Your task to perform on an android device: What's the news in Argentina? Image 0: 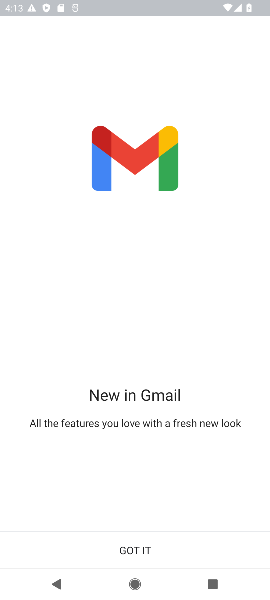
Step 0: press home button
Your task to perform on an android device: What's the news in Argentina? Image 1: 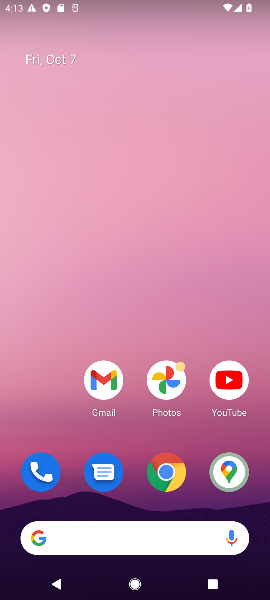
Step 1: click (162, 474)
Your task to perform on an android device: What's the news in Argentina? Image 2: 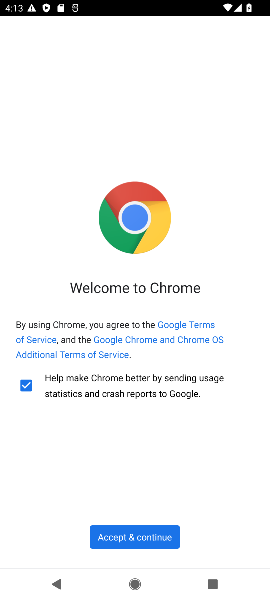
Step 2: click (146, 540)
Your task to perform on an android device: What's the news in Argentina? Image 3: 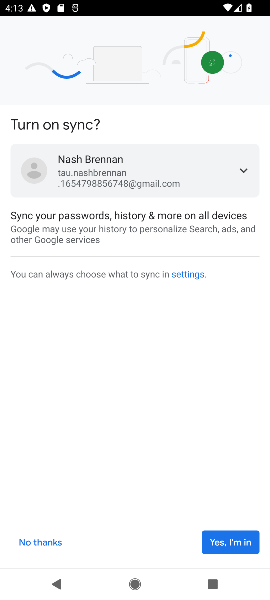
Step 3: click (51, 542)
Your task to perform on an android device: What's the news in Argentina? Image 4: 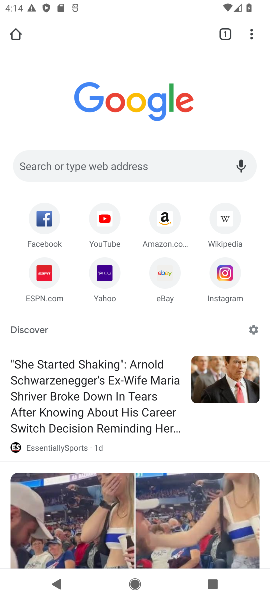
Step 4: click (130, 162)
Your task to perform on an android device: What's the news in Argentina? Image 5: 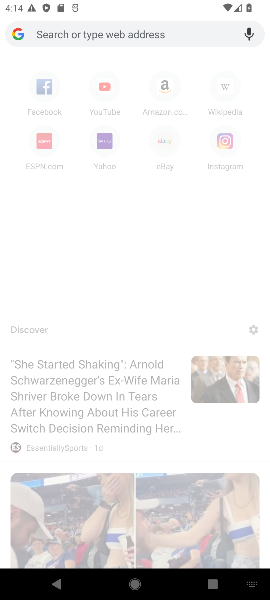
Step 5: type "argentina"
Your task to perform on an android device: What's the news in Argentina? Image 6: 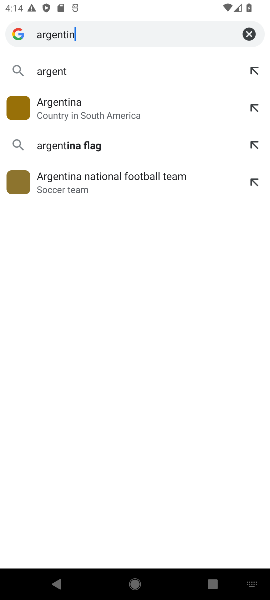
Step 6: press enter
Your task to perform on an android device: What's the news in Argentina? Image 7: 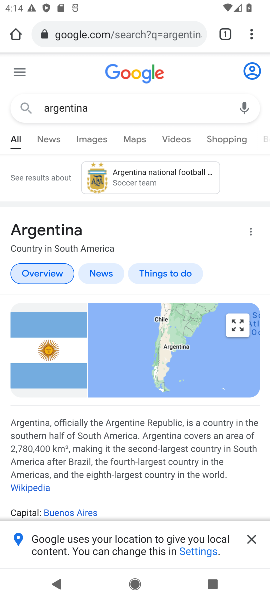
Step 7: click (49, 140)
Your task to perform on an android device: What's the news in Argentina? Image 8: 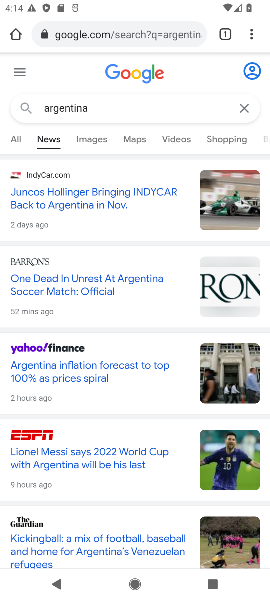
Step 8: task complete